Your task to perform on an android device: Open ESPN.com Image 0: 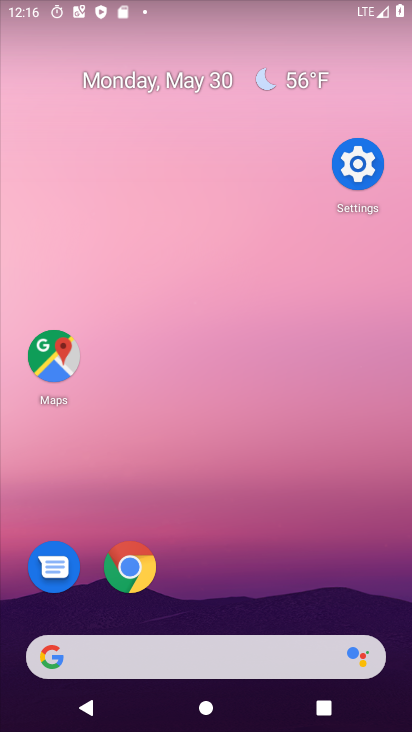
Step 0: drag from (204, 565) to (248, 91)
Your task to perform on an android device: Open ESPN.com Image 1: 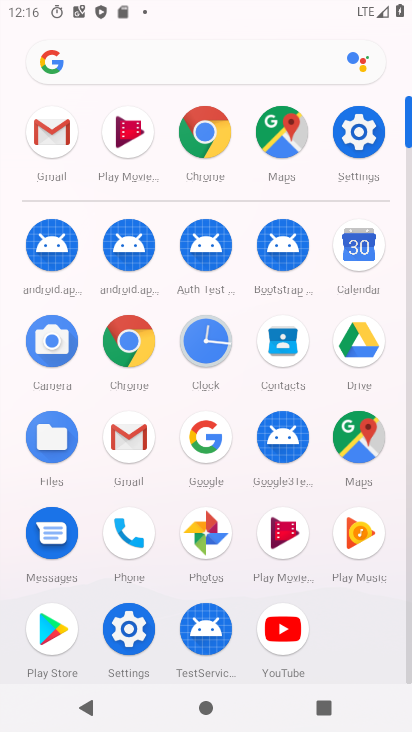
Step 1: click (143, 356)
Your task to perform on an android device: Open ESPN.com Image 2: 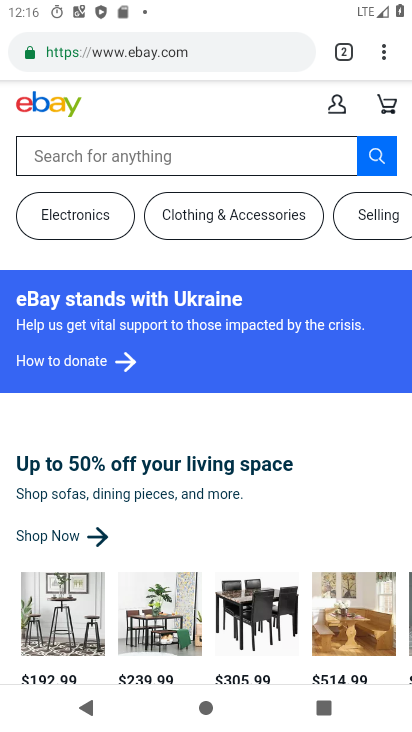
Step 2: click (195, 50)
Your task to perform on an android device: Open ESPN.com Image 3: 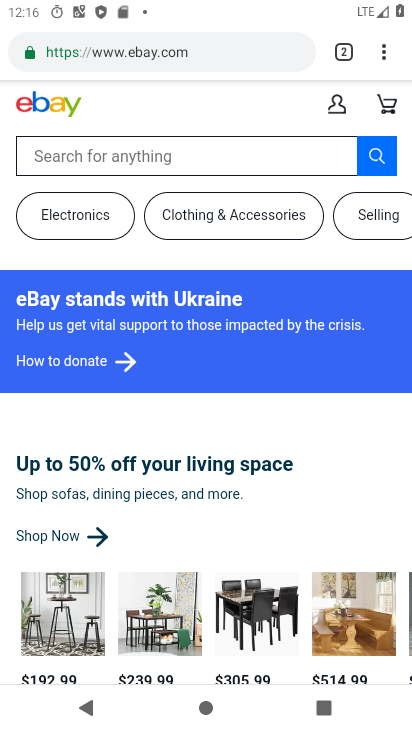
Step 3: click (195, 50)
Your task to perform on an android device: Open ESPN.com Image 4: 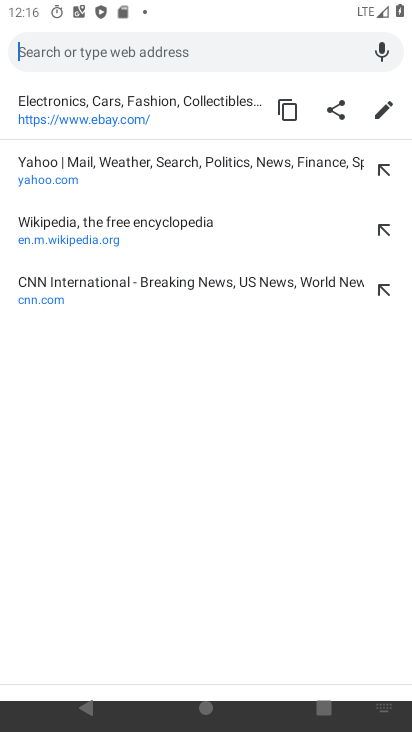
Step 4: click (195, 50)
Your task to perform on an android device: Open ESPN.com Image 5: 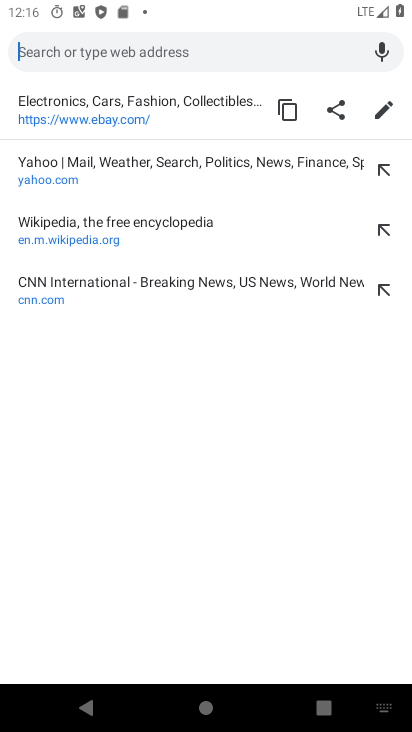
Step 5: type "espn.com"
Your task to perform on an android device: Open ESPN.com Image 6: 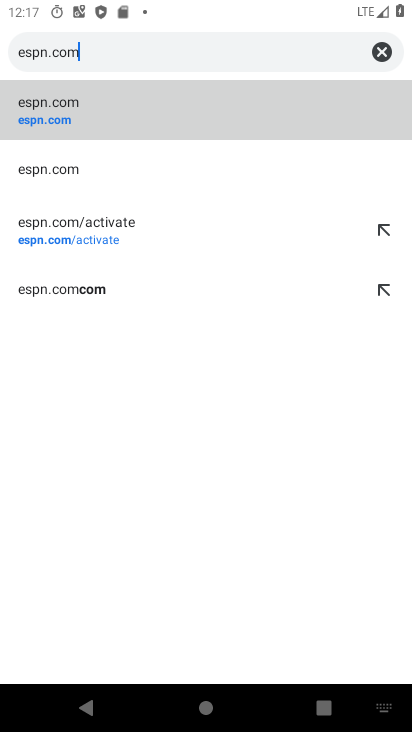
Step 6: click (51, 97)
Your task to perform on an android device: Open ESPN.com Image 7: 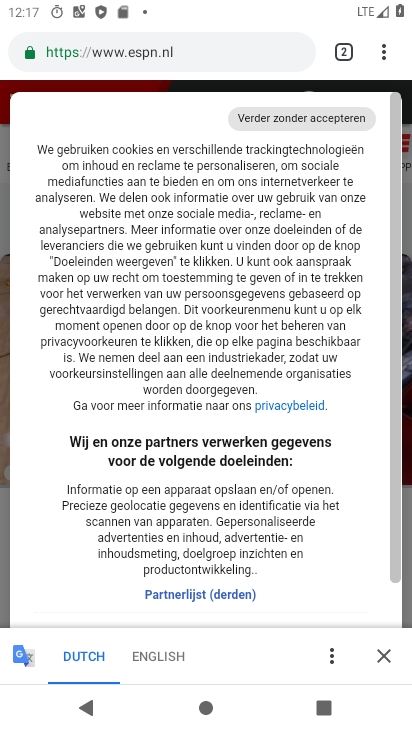
Step 7: task complete